Your task to perform on an android device: Go to notification settings Image 0: 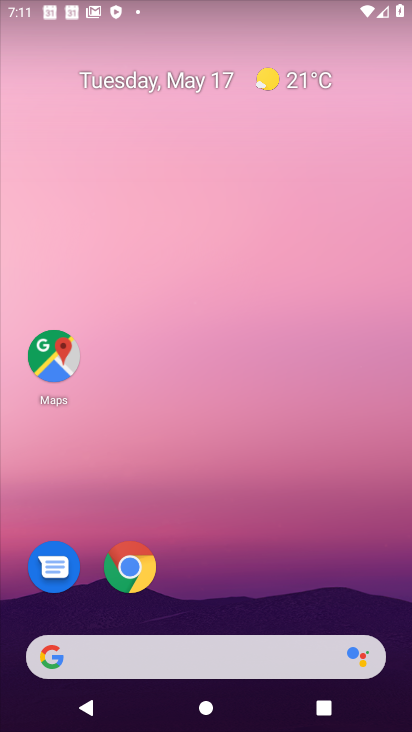
Step 0: drag from (259, 537) to (153, 17)
Your task to perform on an android device: Go to notification settings Image 1: 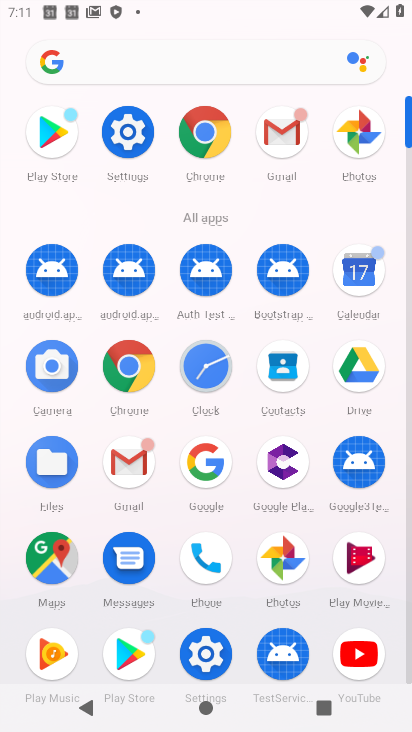
Step 1: click (124, 127)
Your task to perform on an android device: Go to notification settings Image 2: 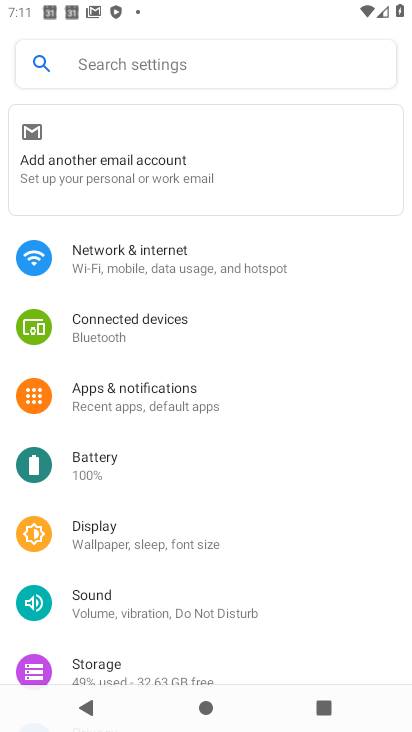
Step 2: click (144, 384)
Your task to perform on an android device: Go to notification settings Image 3: 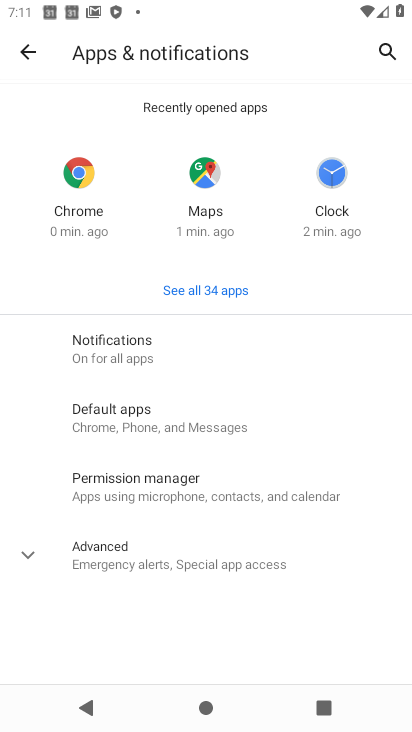
Step 3: task complete